Your task to perform on an android device: check android version Image 0: 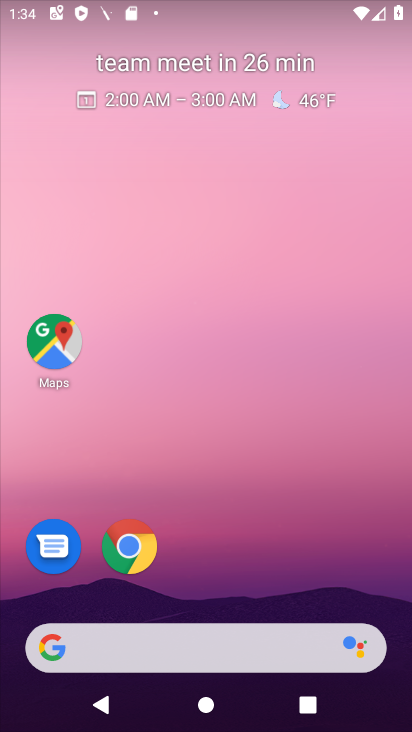
Step 0: drag from (375, 601) to (310, 97)
Your task to perform on an android device: check android version Image 1: 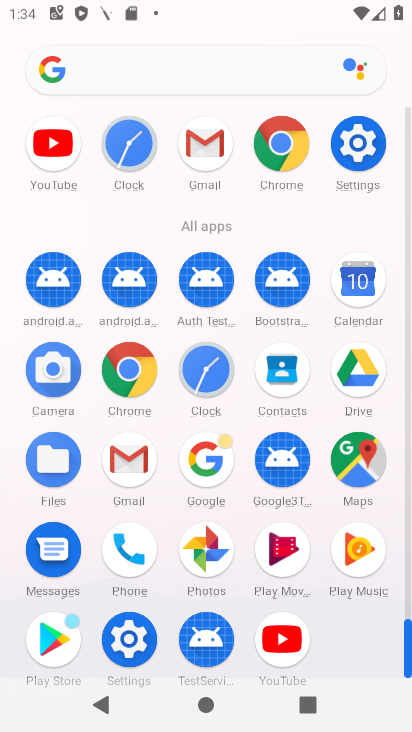
Step 1: click (127, 642)
Your task to perform on an android device: check android version Image 2: 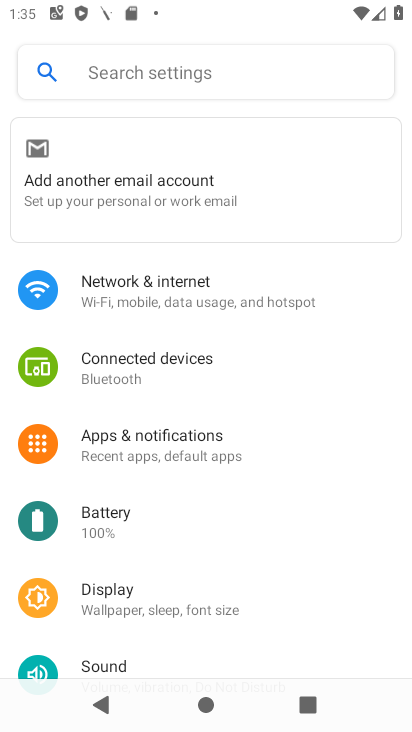
Step 2: drag from (281, 590) to (320, 232)
Your task to perform on an android device: check android version Image 3: 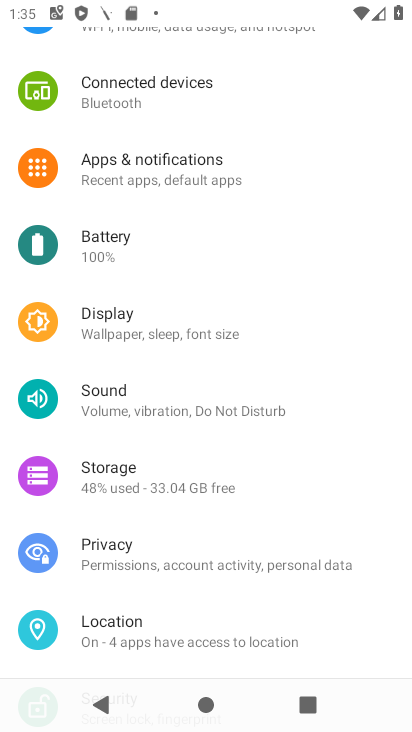
Step 3: click (290, 246)
Your task to perform on an android device: check android version Image 4: 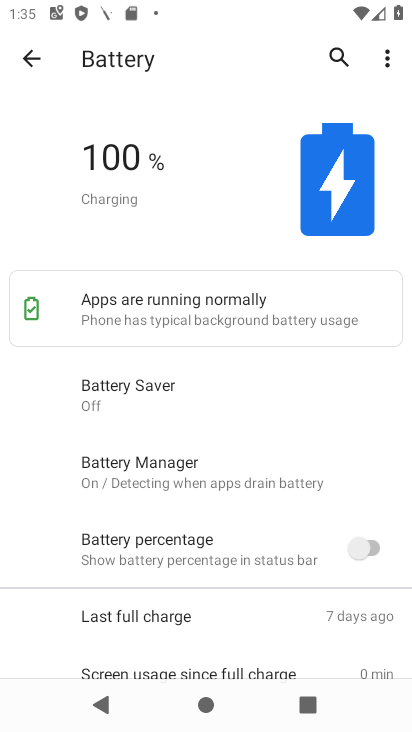
Step 4: press back button
Your task to perform on an android device: check android version Image 5: 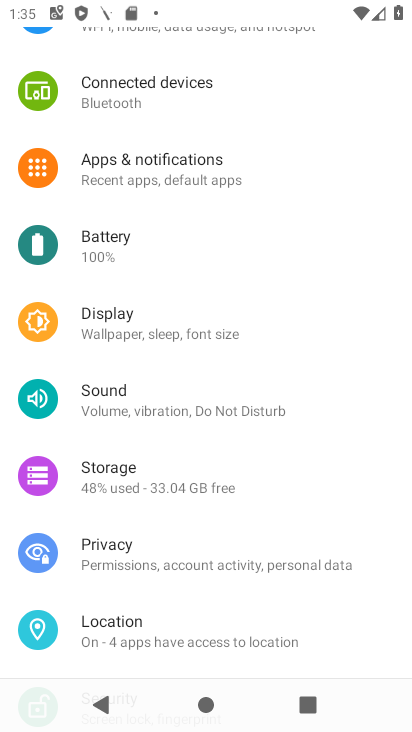
Step 5: drag from (281, 592) to (250, 216)
Your task to perform on an android device: check android version Image 6: 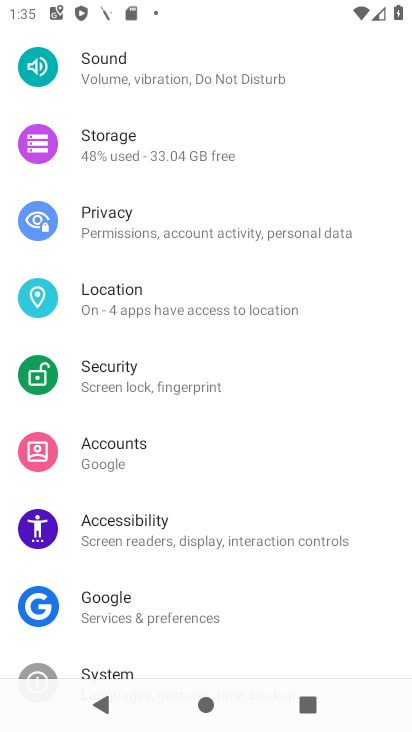
Step 6: drag from (249, 627) to (260, 187)
Your task to perform on an android device: check android version Image 7: 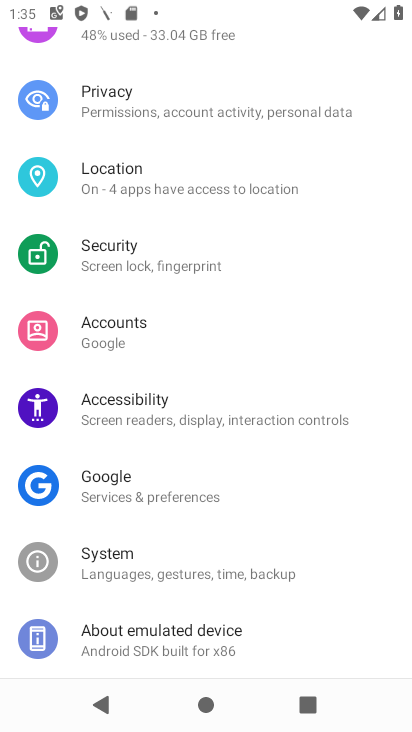
Step 7: drag from (226, 632) to (221, 283)
Your task to perform on an android device: check android version Image 8: 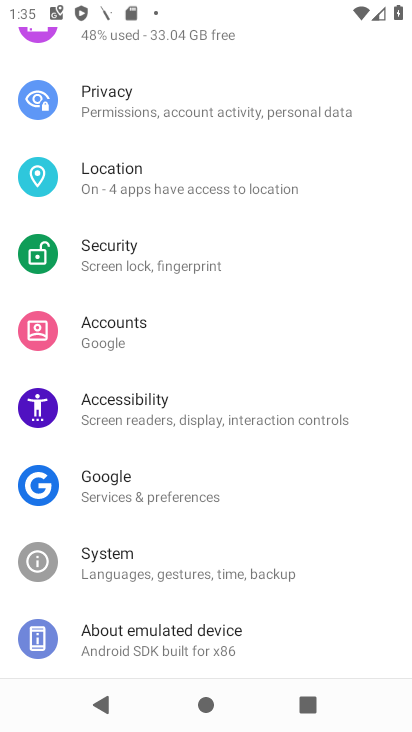
Step 8: click (122, 639)
Your task to perform on an android device: check android version Image 9: 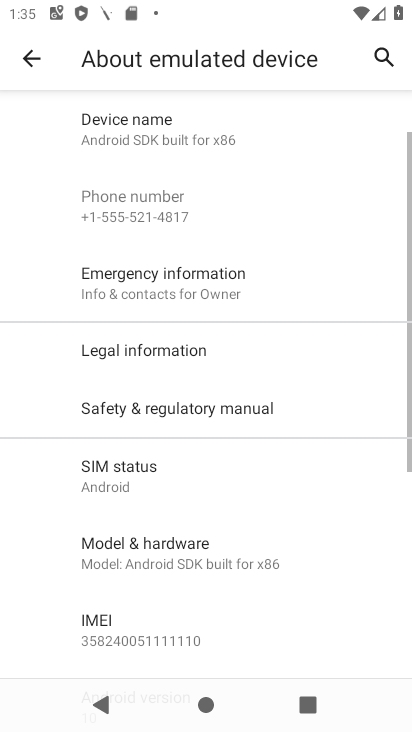
Step 9: drag from (241, 563) to (265, 450)
Your task to perform on an android device: check android version Image 10: 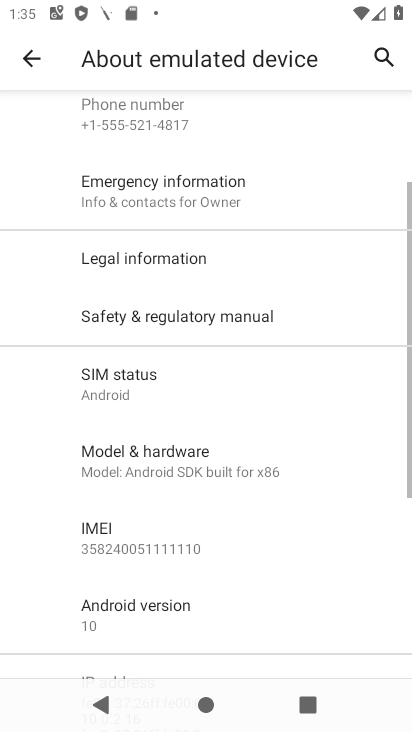
Step 10: drag from (223, 599) to (254, 446)
Your task to perform on an android device: check android version Image 11: 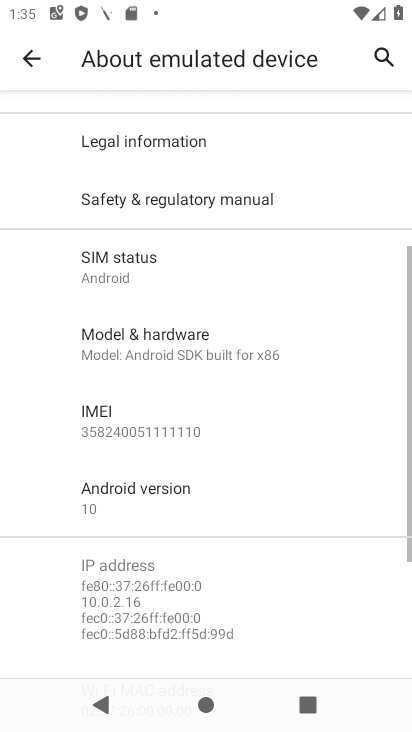
Step 11: drag from (263, 589) to (262, 541)
Your task to perform on an android device: check android version Image 12: 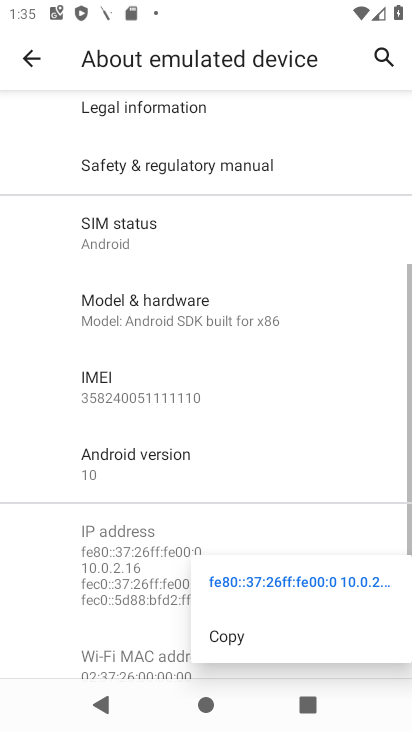
Step 12: click (96, 463)
Your task to perform on an android device: check android version Image 13: 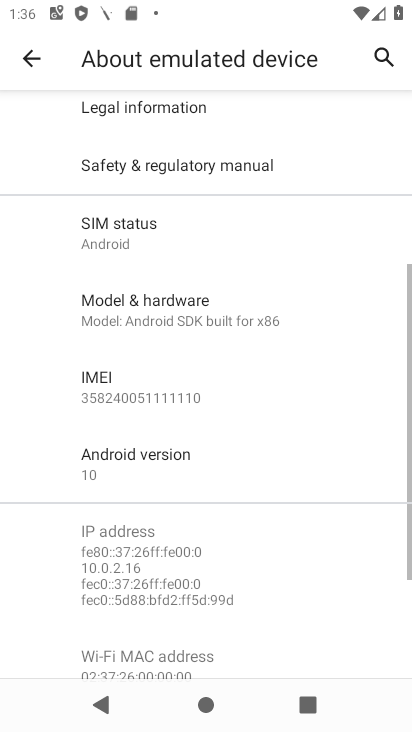
Step 13: click (126, 467)
Your task to perform on an android device: check android version Image 14: 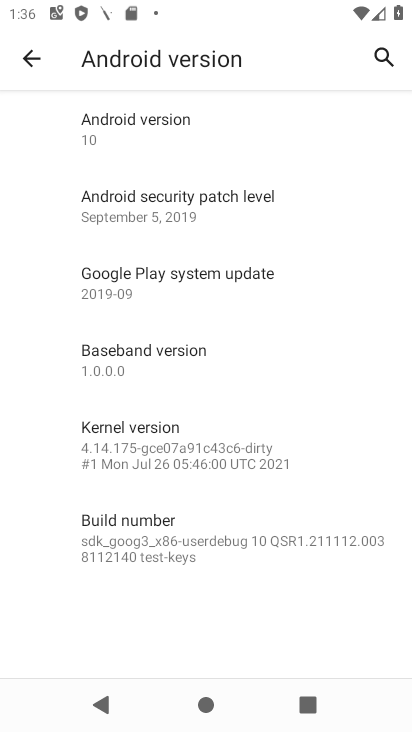
Step 14: task complete